Your task to perform on an android device: set the timer Image 0: 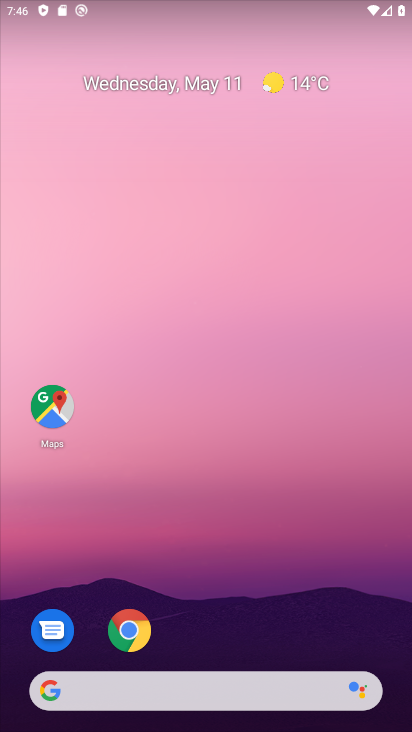
Step 0: drag from (397, 651) to (260, 32)
Your task to perform on an android device: set the timer Image 1: 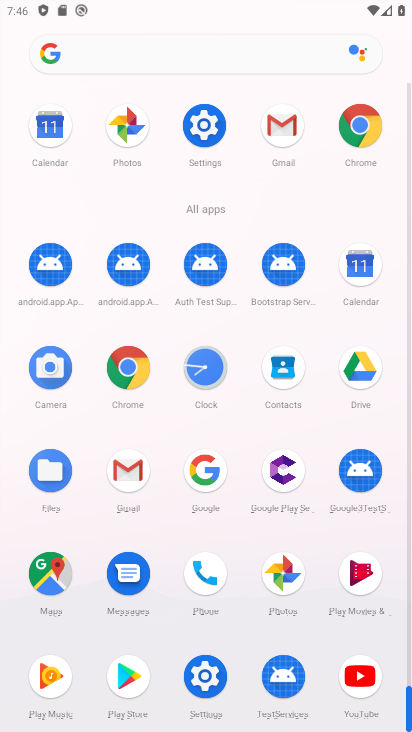
Step 1: drag from (224, 366) to (190, 36)
Your task to perform on an android device: set the timer Image 2: 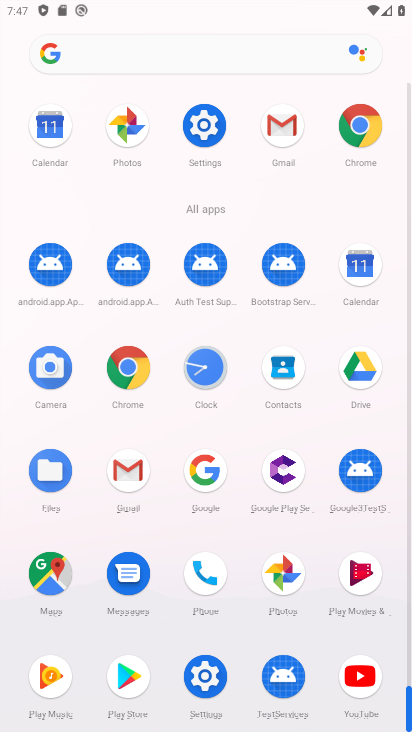
Step 2: click (197, 365)
Your task to perform on an android device: set the timer Image 3: 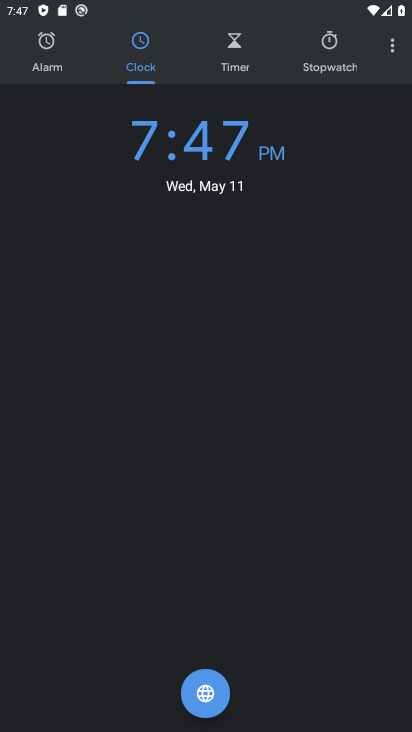
Step 3: click (211, 353)
Your task to perform on an android device: set the timer Image 4: 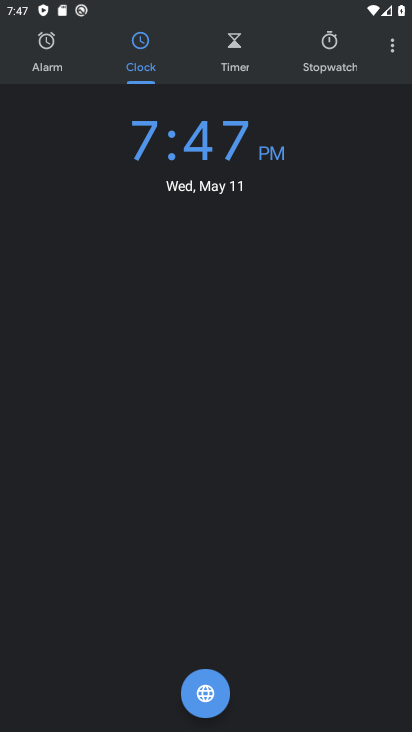
Step 4: click (202, 362)
Your task to perform on an android device: set the timer Image 5: 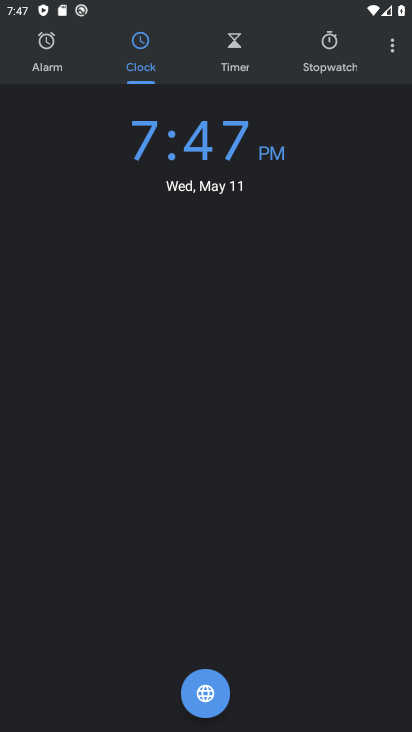
Step 5: drag from (212, 366) to (190, 100)
Your task to perform on an android device: set the timer Image 6: 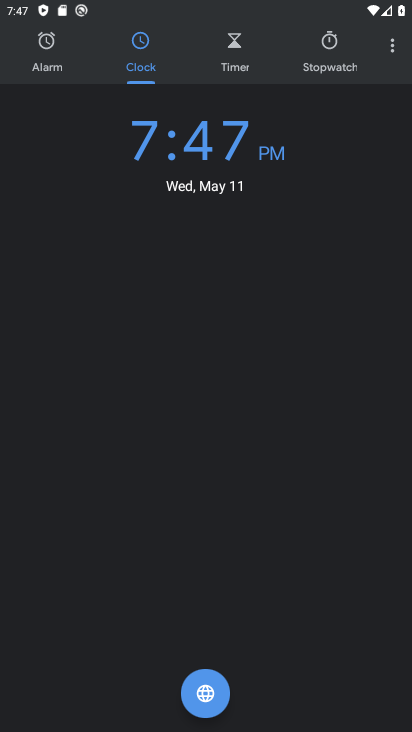
Step 6: press home button
Your task to perform on an android device: set the timer Image 7: 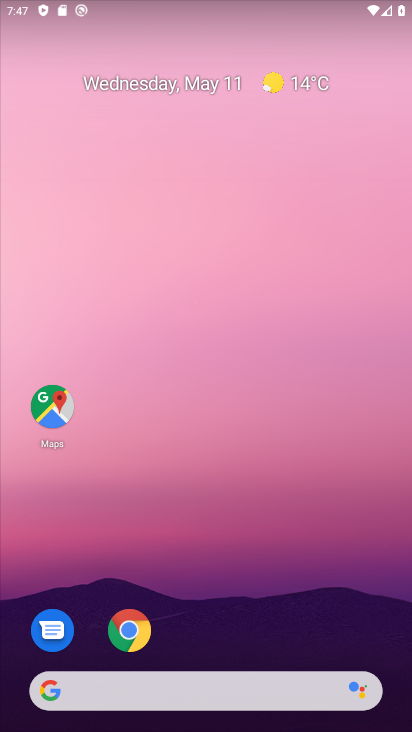
Step 7: drag from (298, 649) to (186, 98)
Your task to perform on an android device: set the timer Image 8: 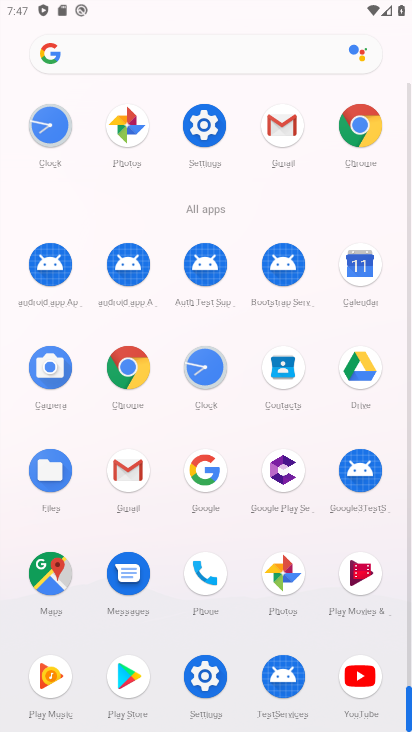
Step 8: drag from (257, 453) to (158, 11)
Your task to perform on an android device: set the timer Image 9: 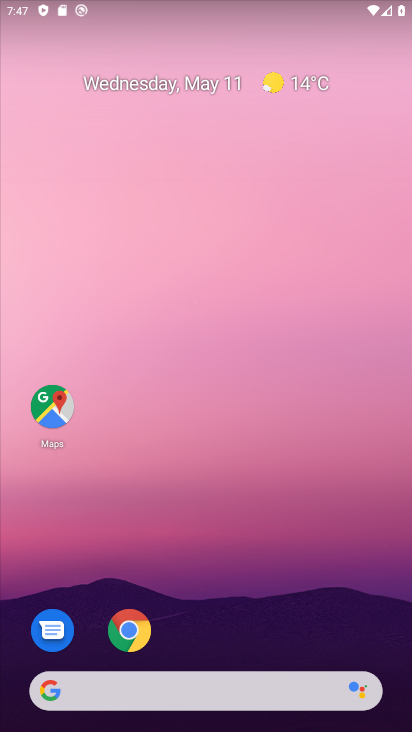
Step 9: click (210, 359)
Your task to perform on an android device: set the timer Image 10: 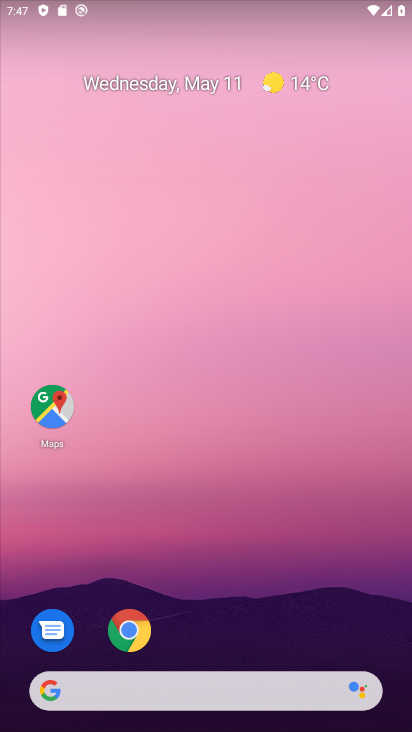
Step 10: drag from (192, 571) to (113, 61)
Your task to perform on an android device: set the timer Image 11: 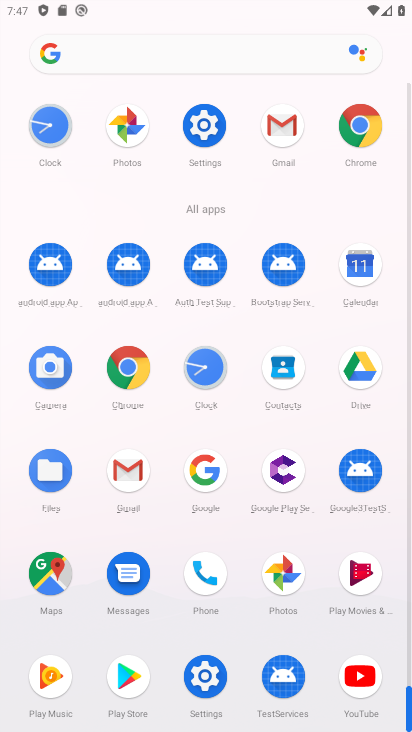
Step 11: click (210, 371)
Your task to perform on an android device: set the timer Image 12: 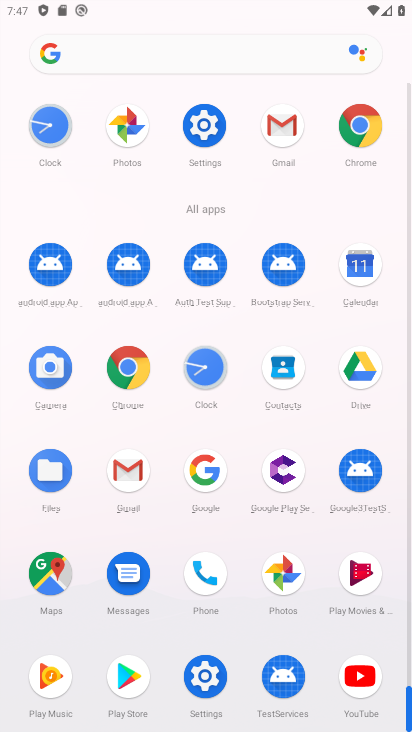
Step 12: click (210, 371)
Your task to perform on an android device: set the timer Image 13: 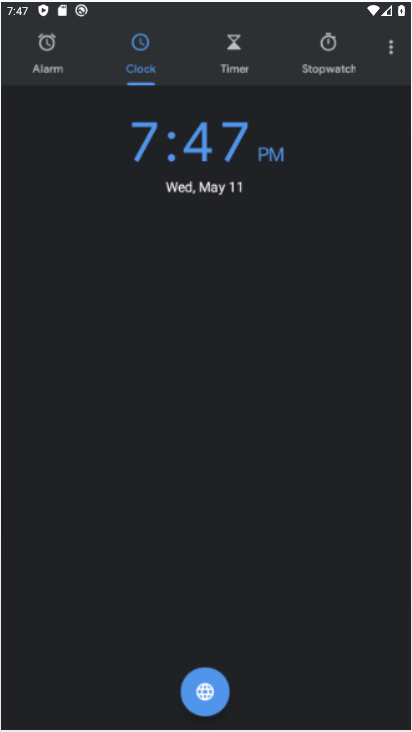
Step 13: click (210, 371)
Your task to perform on an android device: set the timer Image 14: 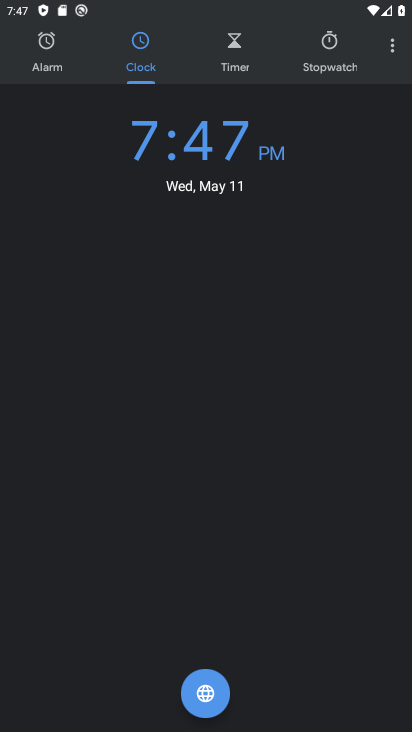
Step 14: click (228, 54)
Your task to perform on an android device: set the timer Image 15: 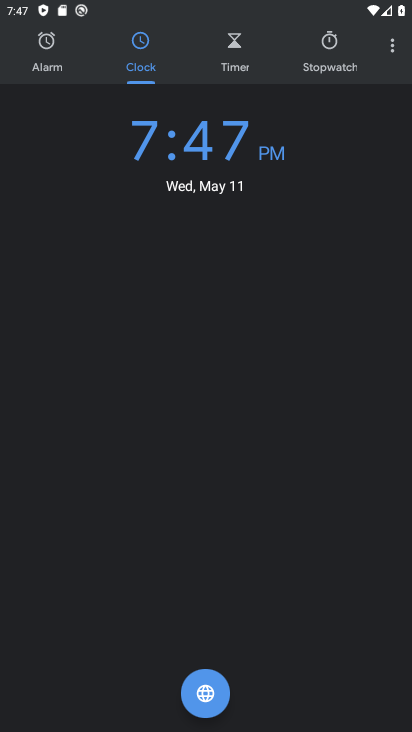
Step 15: click (228, 56)
Your task to perform on an android device: set the timer Image 16: 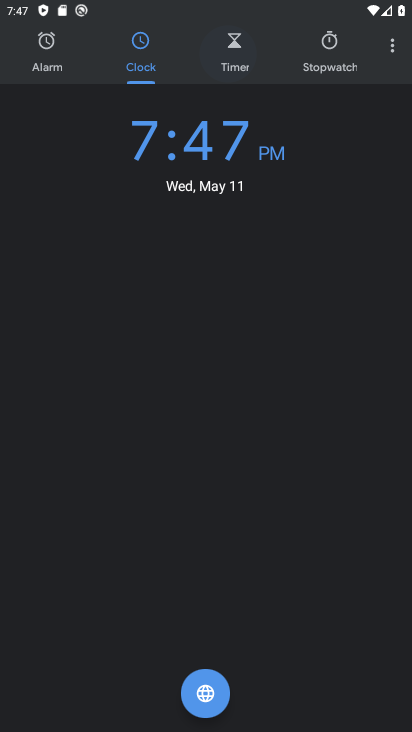
Step 16: click (228, 56)
Your task to perform on an android device: set the timer Image 17: 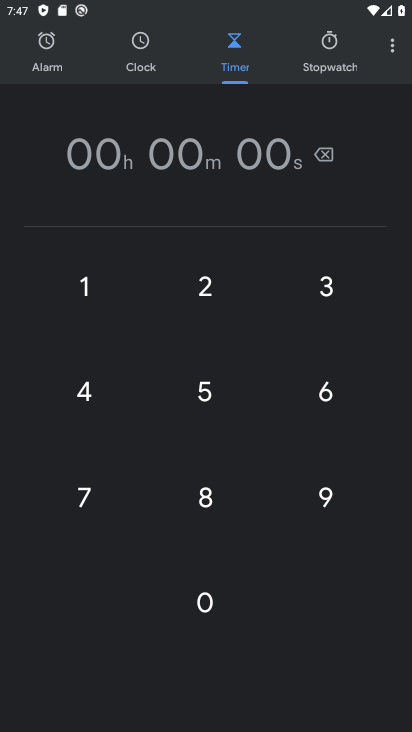
Step 17: click (205, 512)
Your task to perform on an android device: set the timer Image 18: 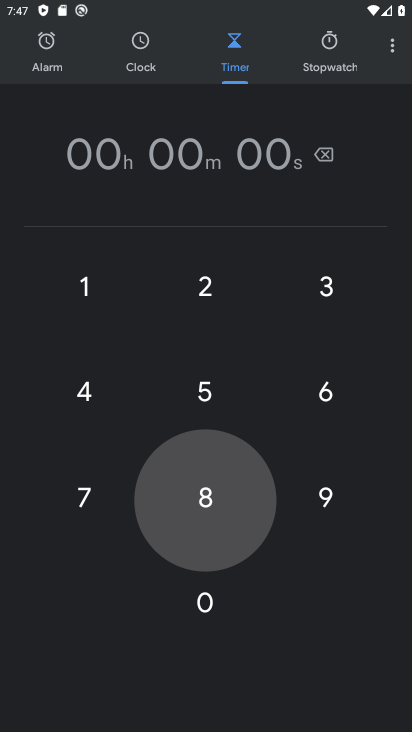
Step 18: click (206, 512)
Your task to perform on an android device: set the timer Image 19: 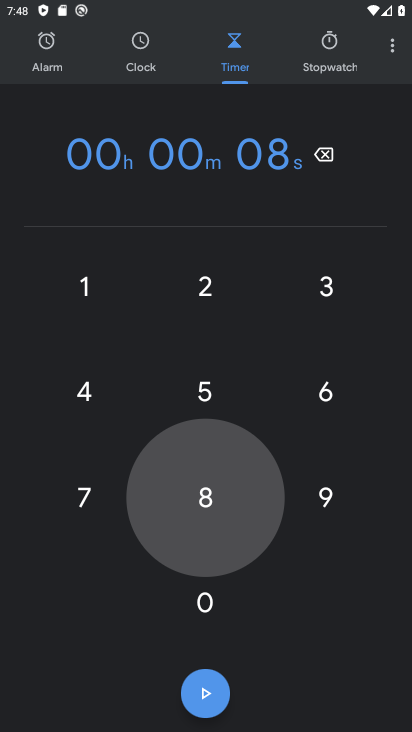
Step 19: click (208, 510)
Your task to perform on an android device: set the timer Image 20: 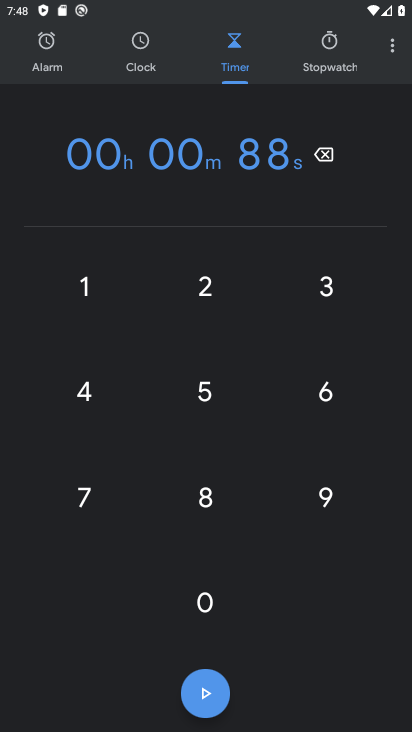
Step 20: click (209, 509)
Your task to perform on an android device: set the timer Image 21: 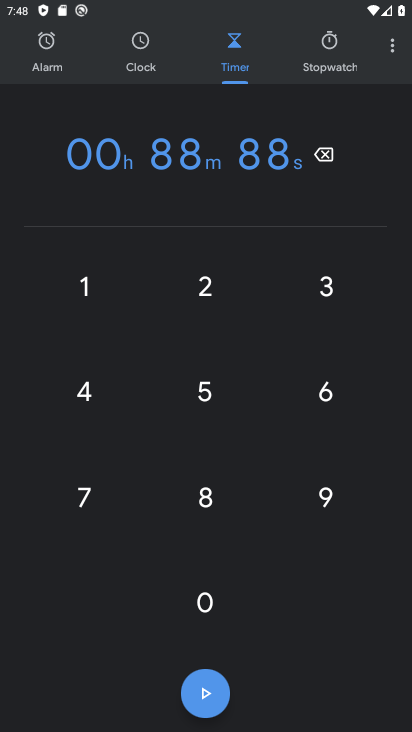
Step 21: click (201, 498)
Your task to perform on an android device: set the timer Image 22: 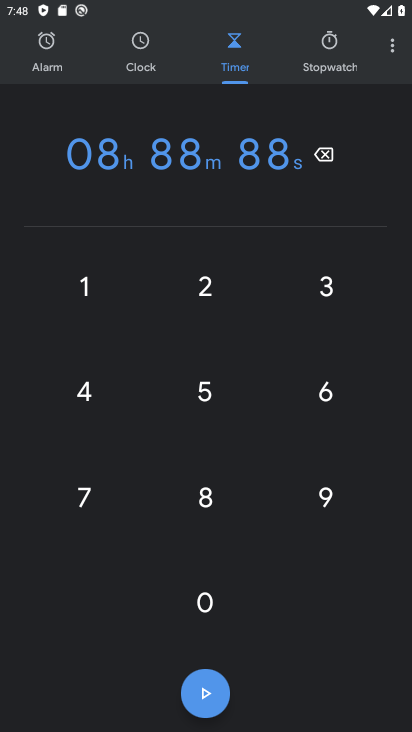
Step 22: click (201, 498)
Your task to perform on an android device: set the timer Image 23: 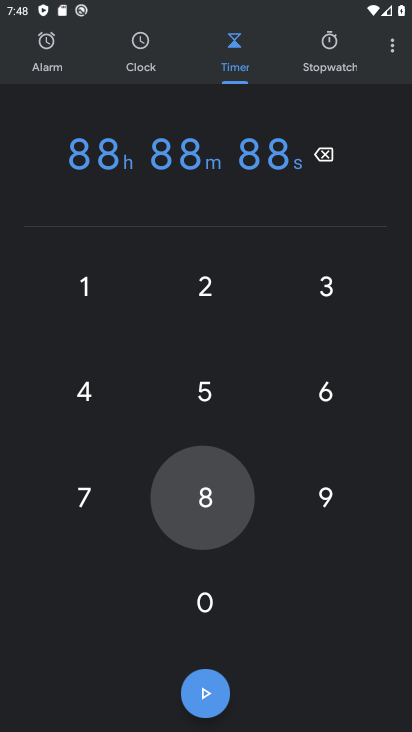
Step 23: click (201, 498)
Your task to perform on an android device: set the timer Image 24: 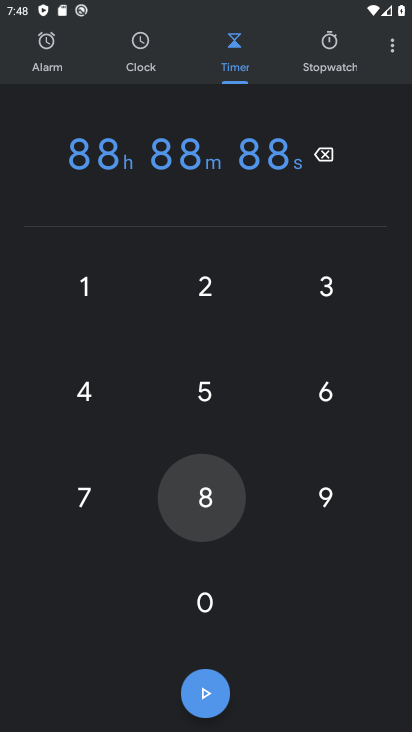
Step 24: click (201, 498)
Your task to perform on an android device: set the timer Image 25: 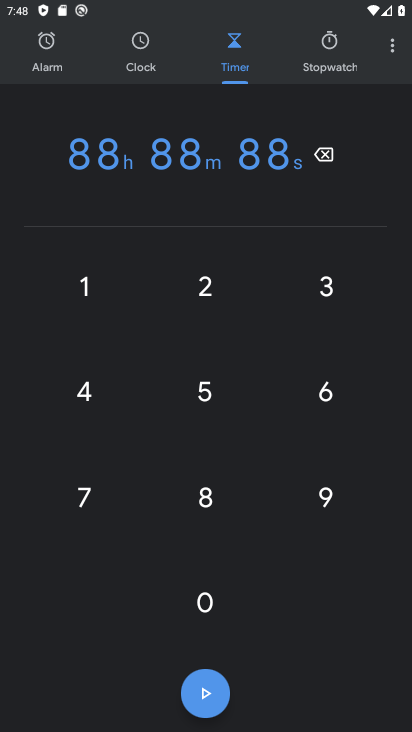
Step 25: click (201, 498)
Your task to perform on an android device: set the timer Image 26: 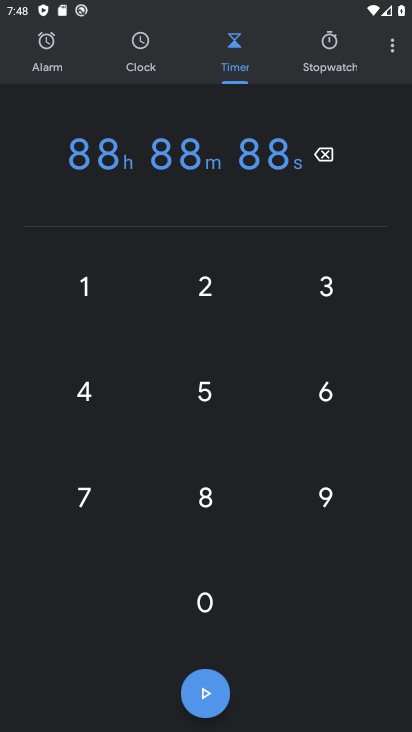
Step 26: click (213, 689)
Your task to perform on an android device: set the timer Image 27: 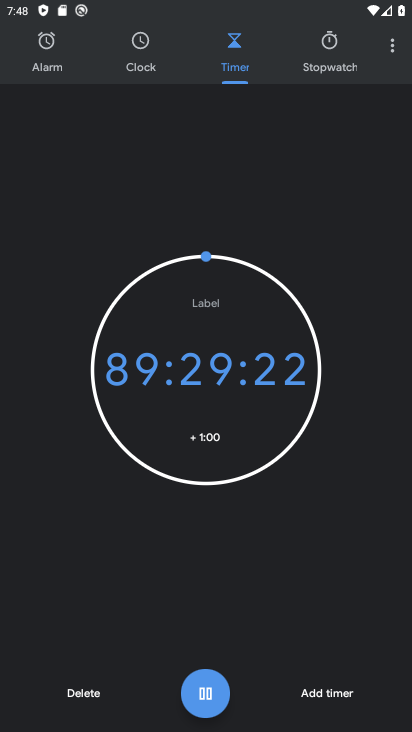
Step 27: click (202, 674)
Your task to perform on an android device: set the timer Image 28: 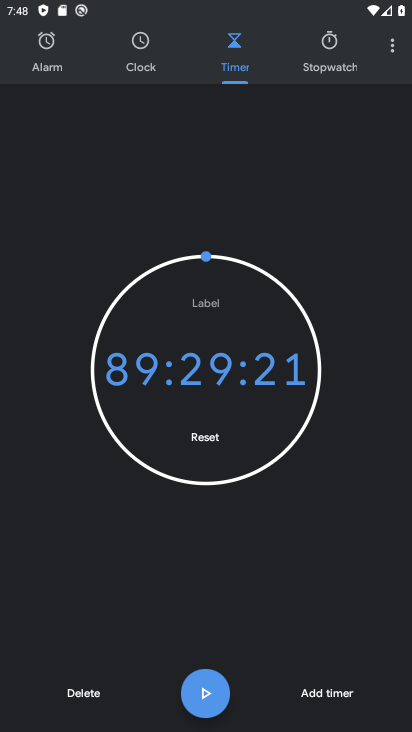
Step 28: task complete